Your task to perform on an android device: Open Wikipedia Image 0: 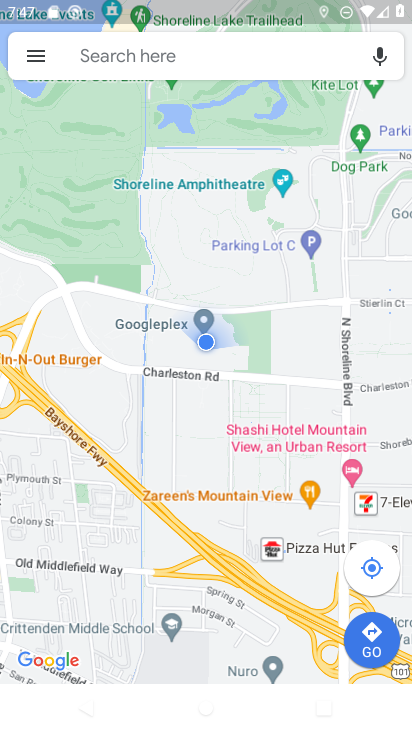
Step 0: drag from (290, 254) to (296, 586)
Your task to perform on an android device: Open Wikipedia Image 1: 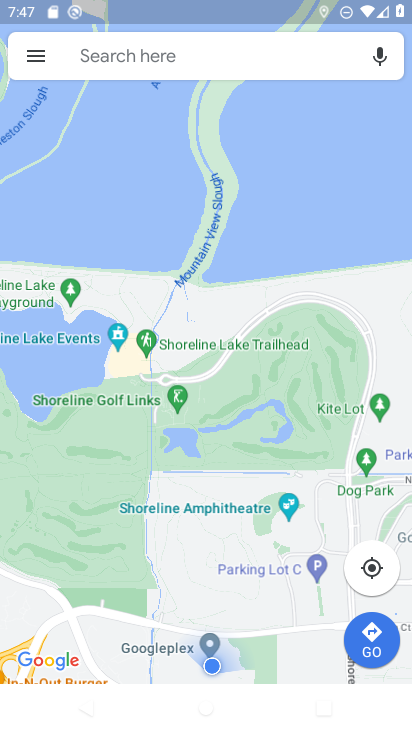
Step 1: press home button
Your task to perform on an android device: Open Wikipedia Image 2: 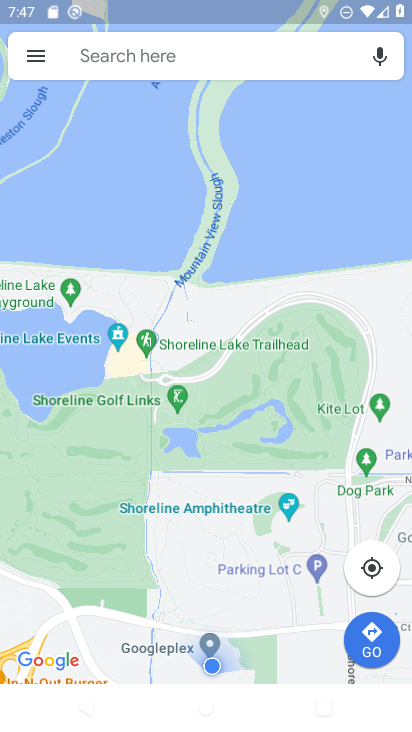
Step 2: drag from (122, 594) to (280, 86)
Your task to perform on an android device: Open Wikipedia Image 3: 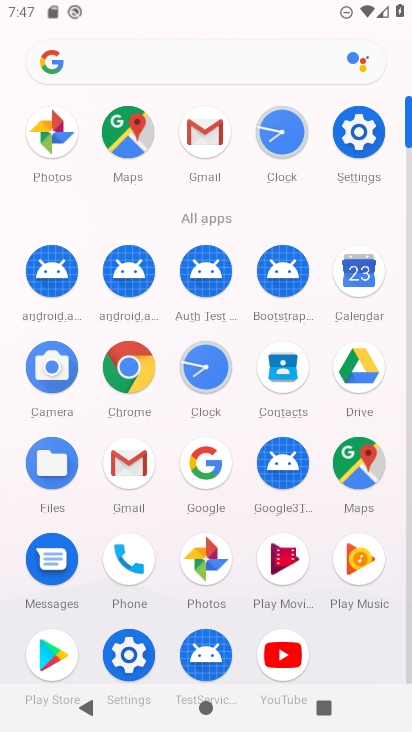
Step 3: click (139, 71)
Your task to perform on an android device: Open Wikipedia Image 4: 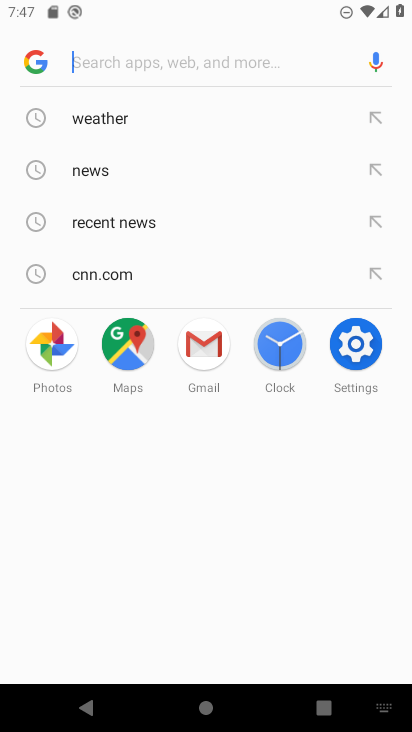
Step 4: type "wikipedia.com"
Your task to perform on an android device: Open Wikipedia Image 5: 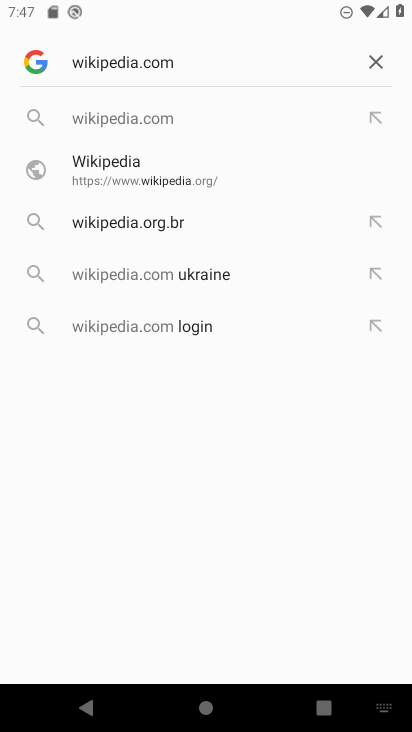
Step 5: click (95, 133)
Your task to perform on an android device: Open Wikipedia Image 6: 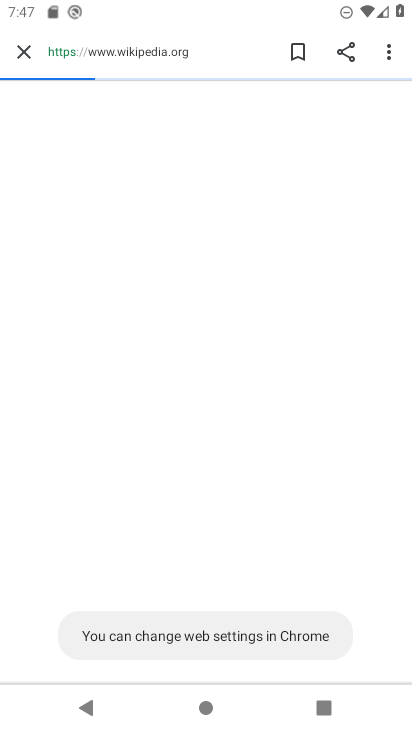
Step 6: task complete